Your task to perform on an android device: open a new tab in the chrome app Image 0: 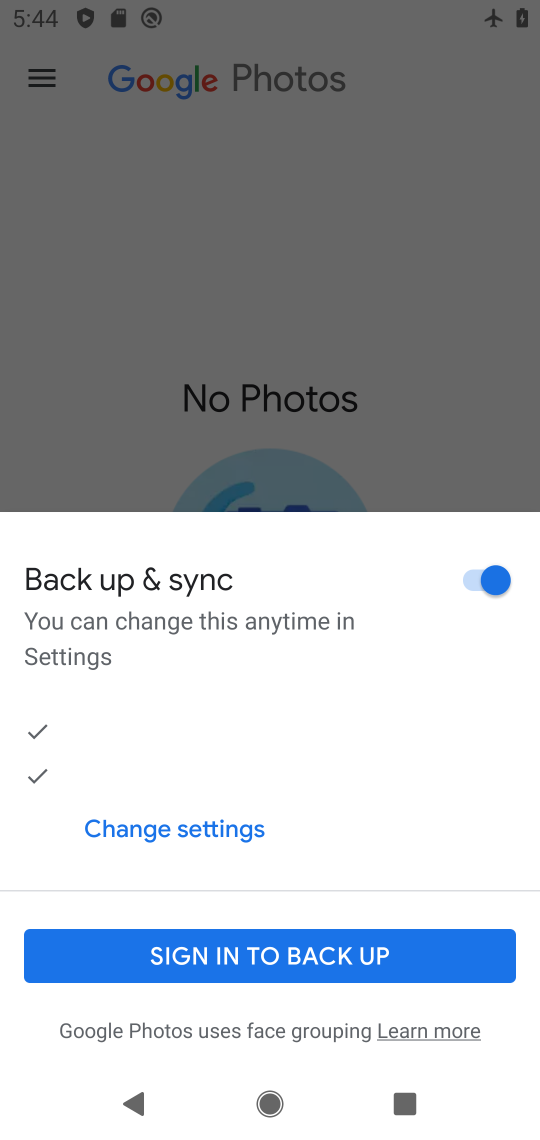
Step 0: press home button
Your task to perform on an android device: open a new tab in the chrome app Image 1: 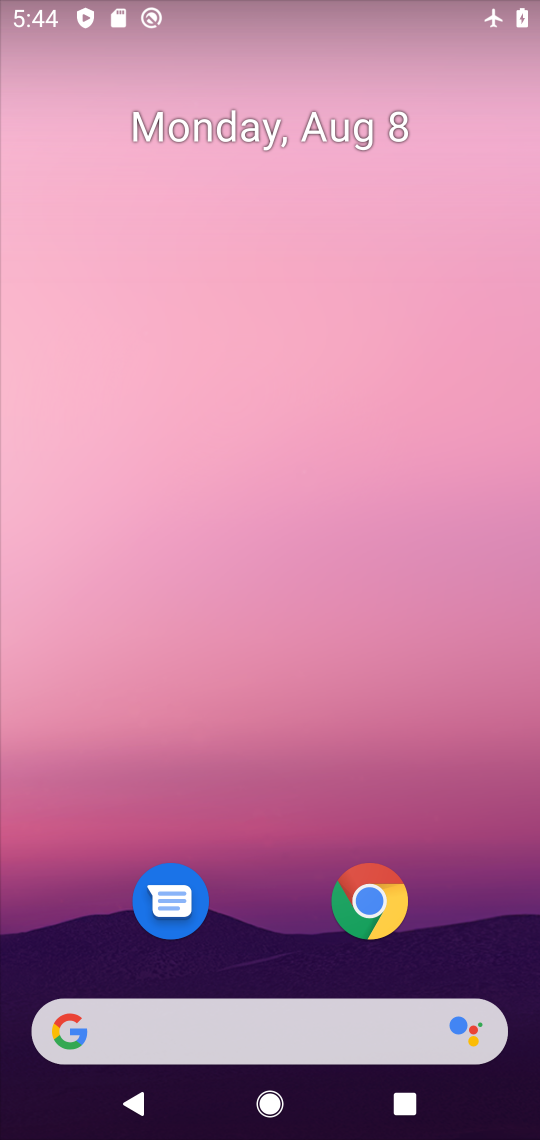
Step 1: click (367, 914)
Your task to perform on an android device: open a new tab in the chrome app Image 2: 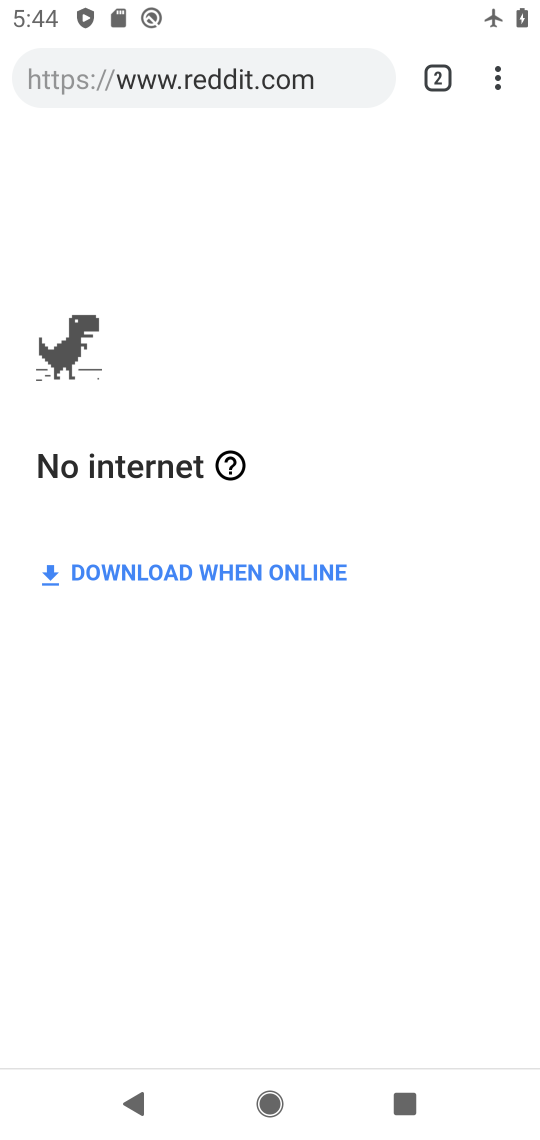
Step 2: click (488, 102)
Your task to perform on an android device: open a new tab in the chrome app Image 3: 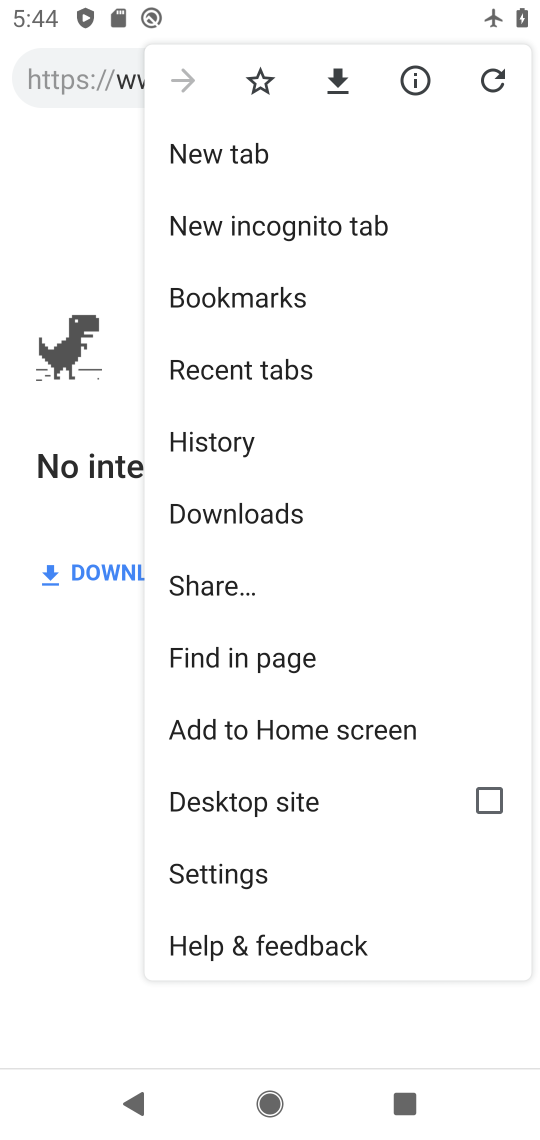
Step 3: click (350, 155)
Your task to perform on an android device: open a new tab in the chrome app Image 4: 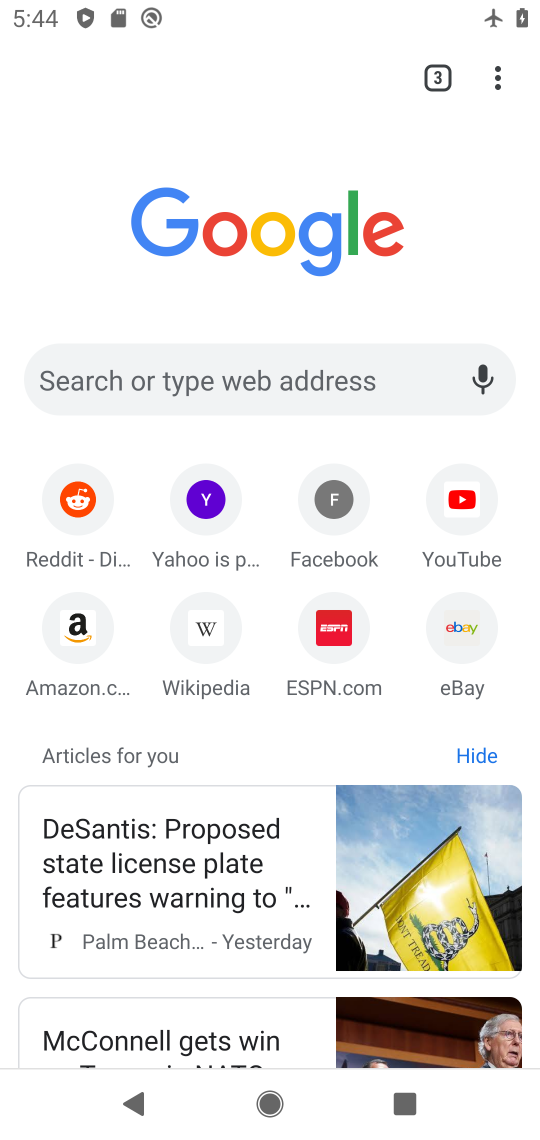
Step 4: click (501, 70)
Your task to perform on an android device: open a new tab in the chrome app Image 5: 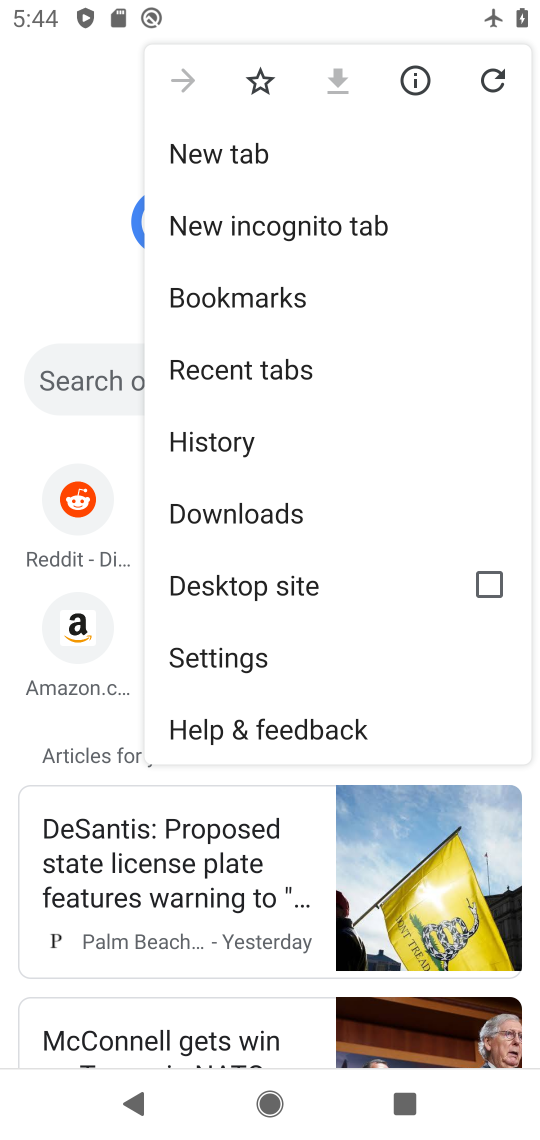
Step 5: click (381, 150)
Your task to perform on an android device: open a new tab in the chrome app Image 6: 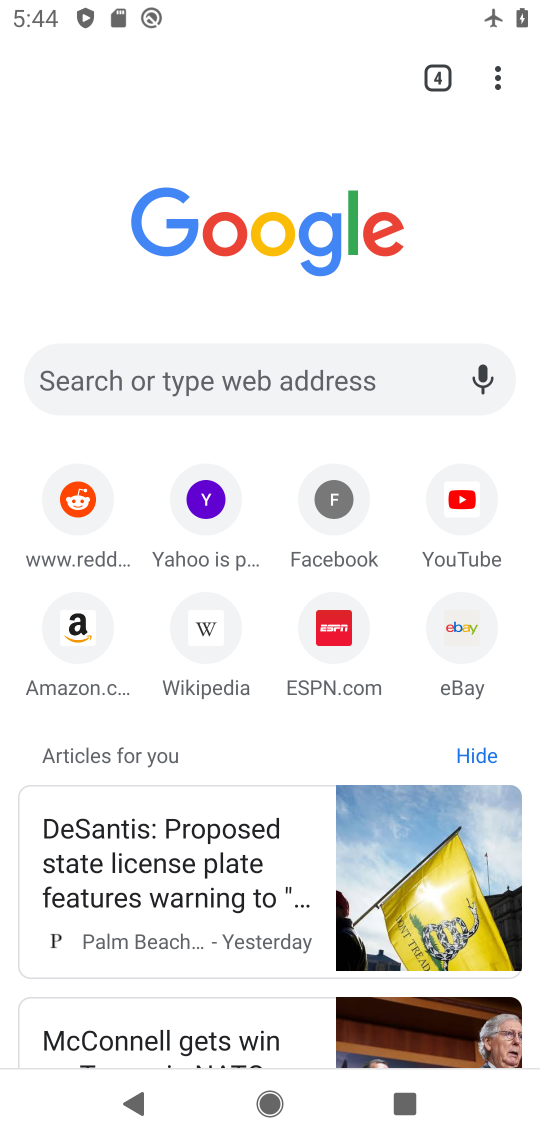
Step 6: task complete